Your task to perform on an android device: Search for pizza restaurants on Maps Image 0: 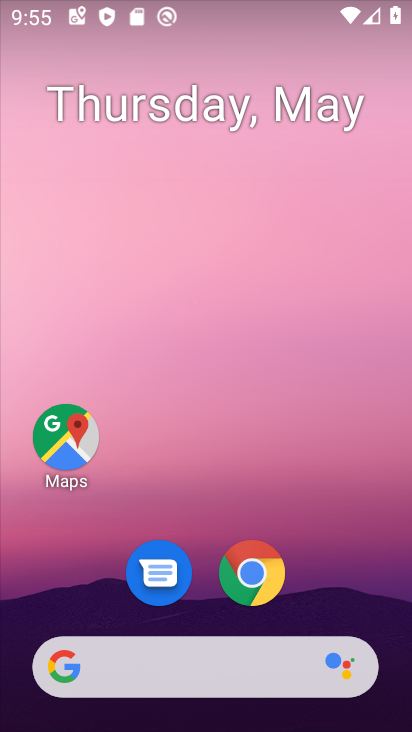
Step 0: click (89, 417)
Your task to perform on an android device: Search for pizza restaurants on Maps Image 1: 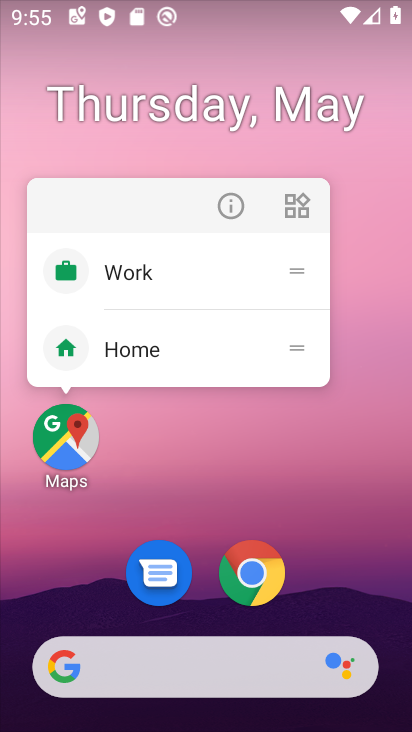
Step 1: click (56, 424)
Your task to perform on an android device: Search for pizza restaurants on Maps Image 2: 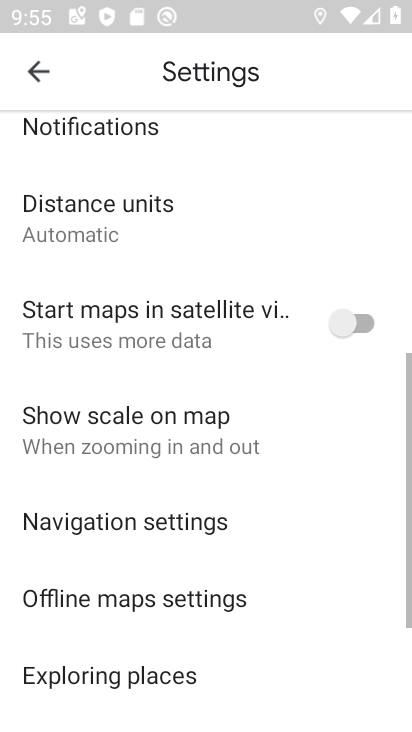
Step 2: drag from (163, 515) to (172, 272)
Your task to perform on an android device: Search for pizza restaurants on Maps Image 3: 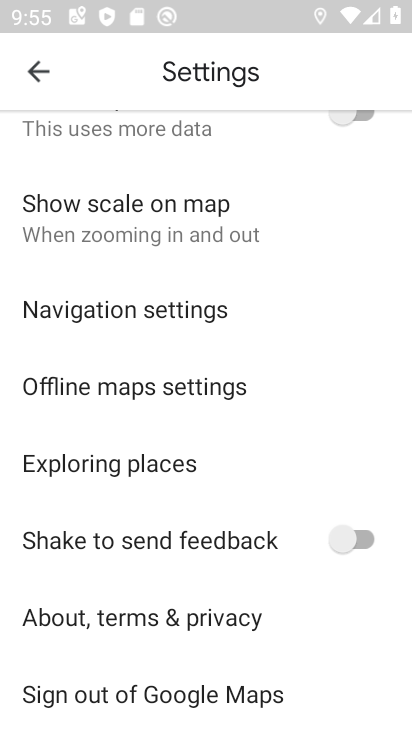
Step 3: click (41, 65)
Your task to perform on an android device: Search for pizza restaurants on Maps Image 4: 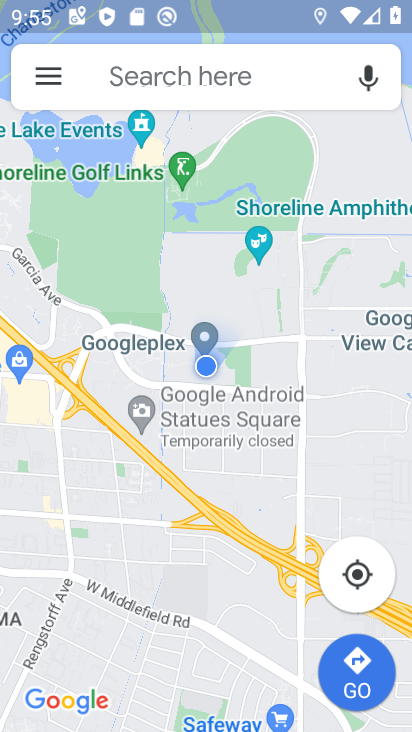
Step 4: click (145, 78)
Your task to perform on an android device: Search for pizza restaurants on Maps Image 5: 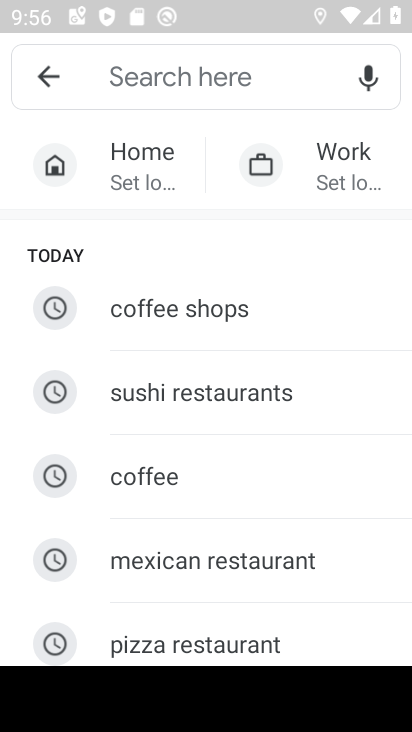
Step 5: type "pizza restaurants"
Your task to perform on an android device: Search for pizza restaurants on Maps Image 6: 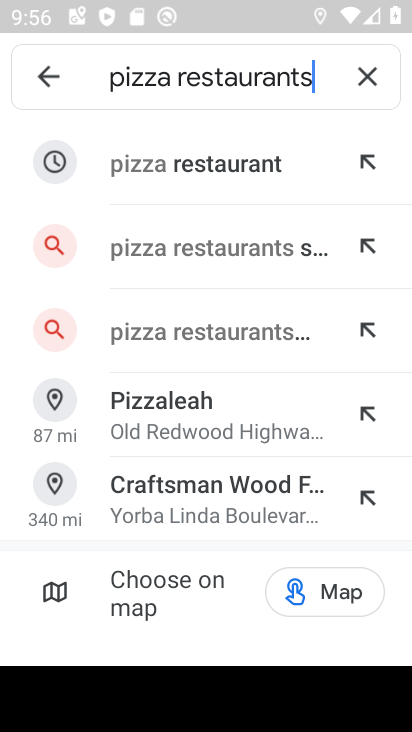
Step 6: click (176, 172)
Your task to perform on an android device: Search for pizza restaurants on Maps Image 7: 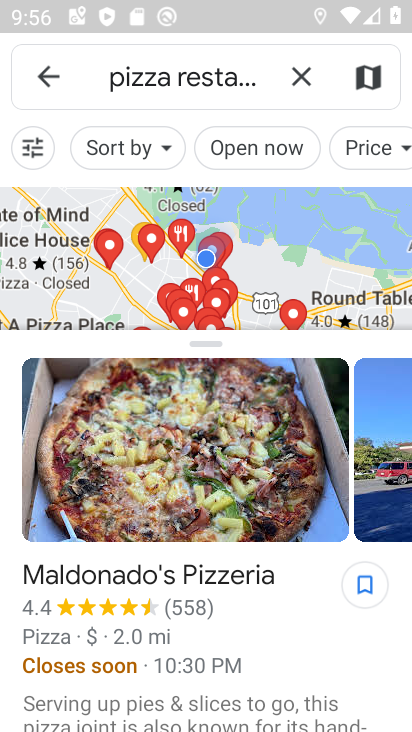
Step 7: task complete